Your task to perform on an android device: Do I have any events this weekend? Image 0: 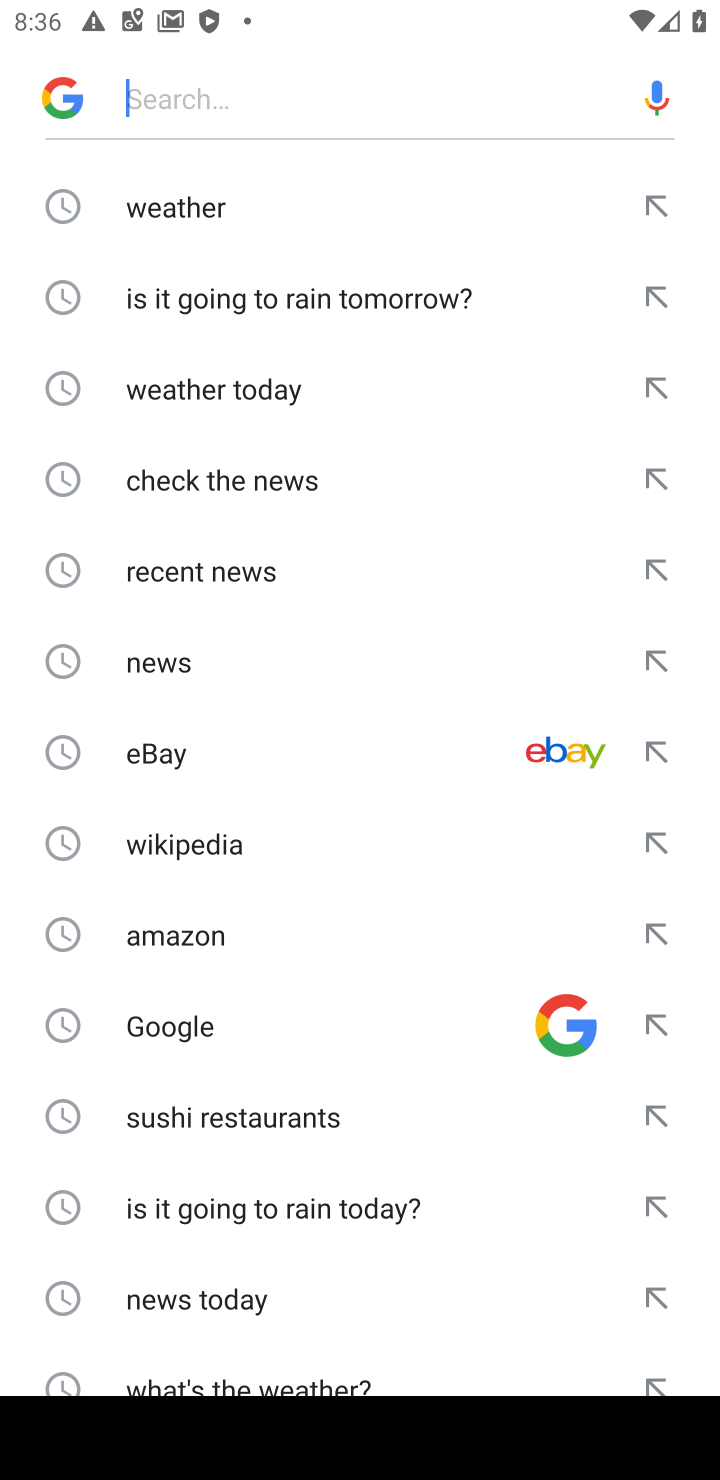
Step 0: press home button
Your task to perform on an android device: Do I have any events this weekend? Image 1: 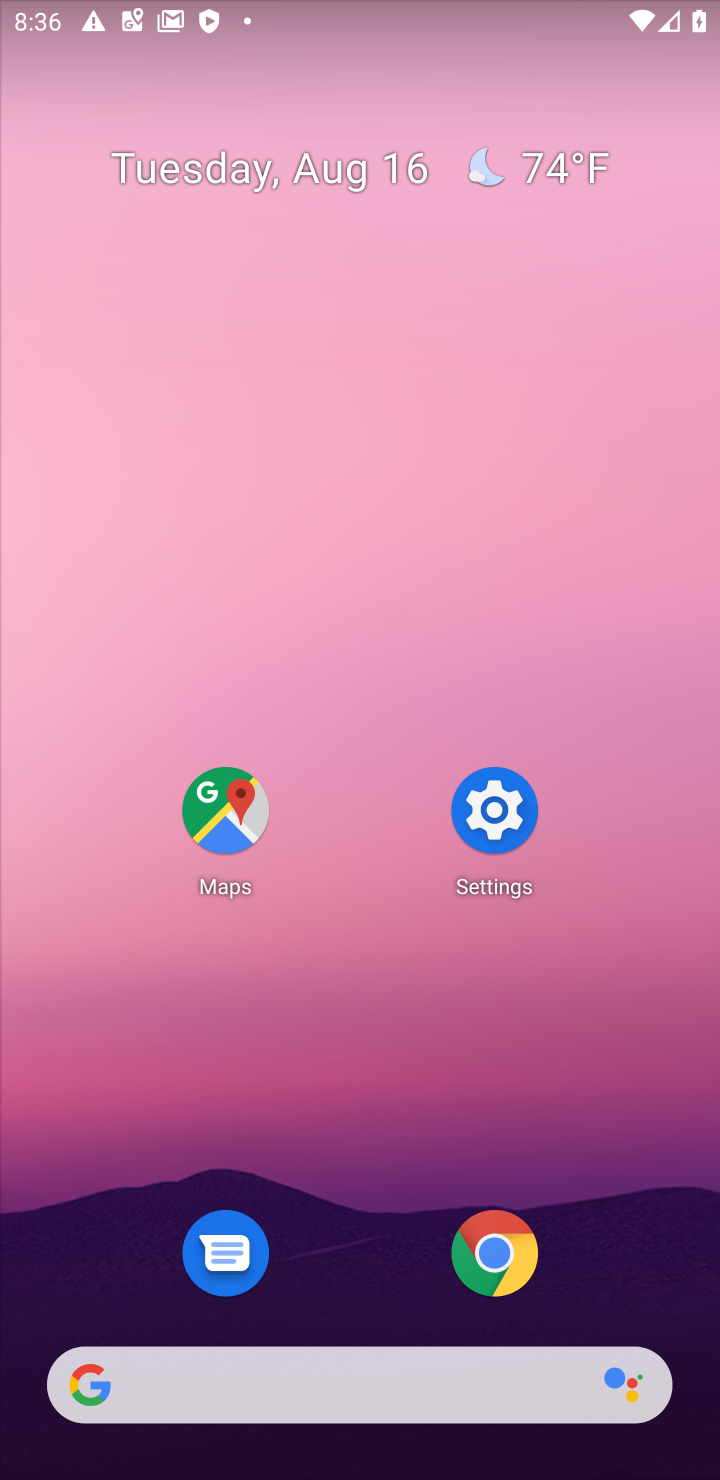
Step 1: drag from (310, 1293) to (523, 485)
Your task to perform on an android device: Do I have any events this weekend? Image 2: 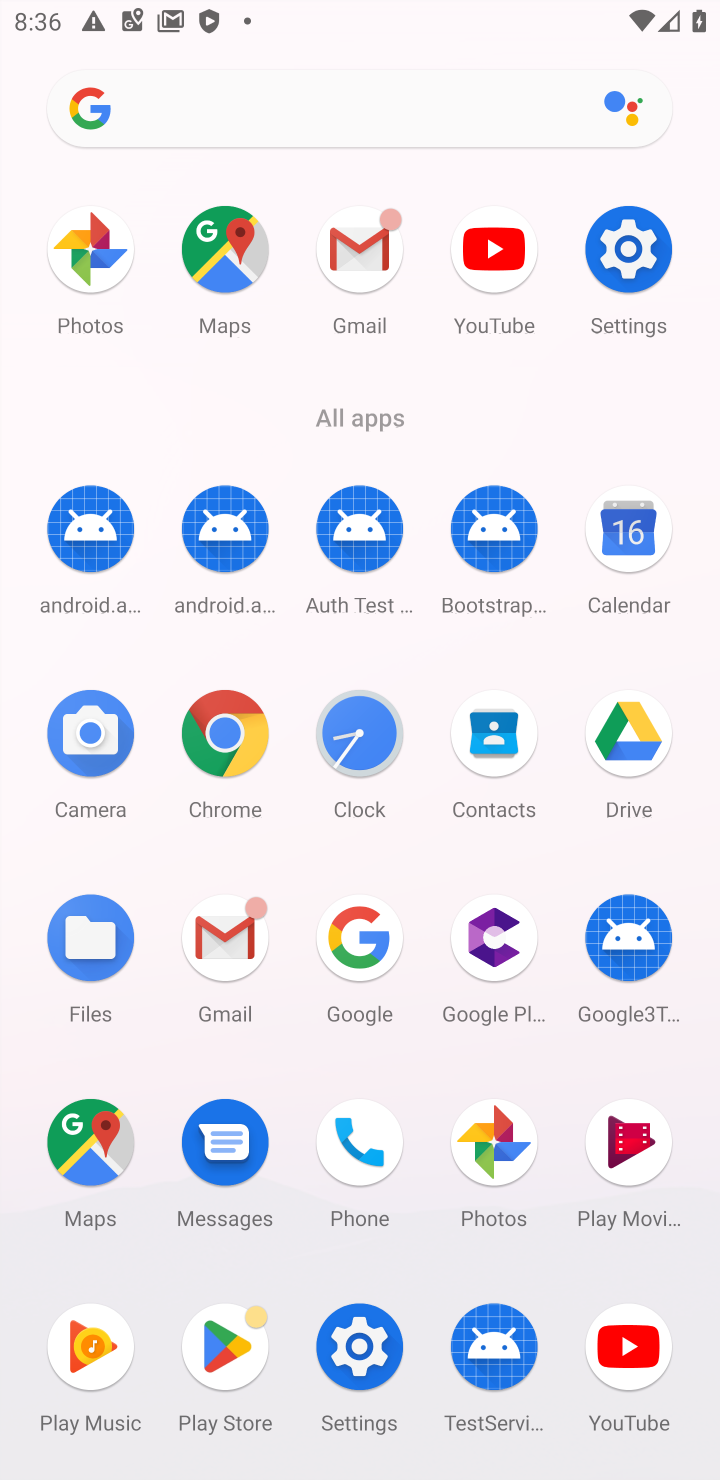
Step 2: click (607, 527)
Your task to perform on an android device: Do I have any events this weekend? Image 3: 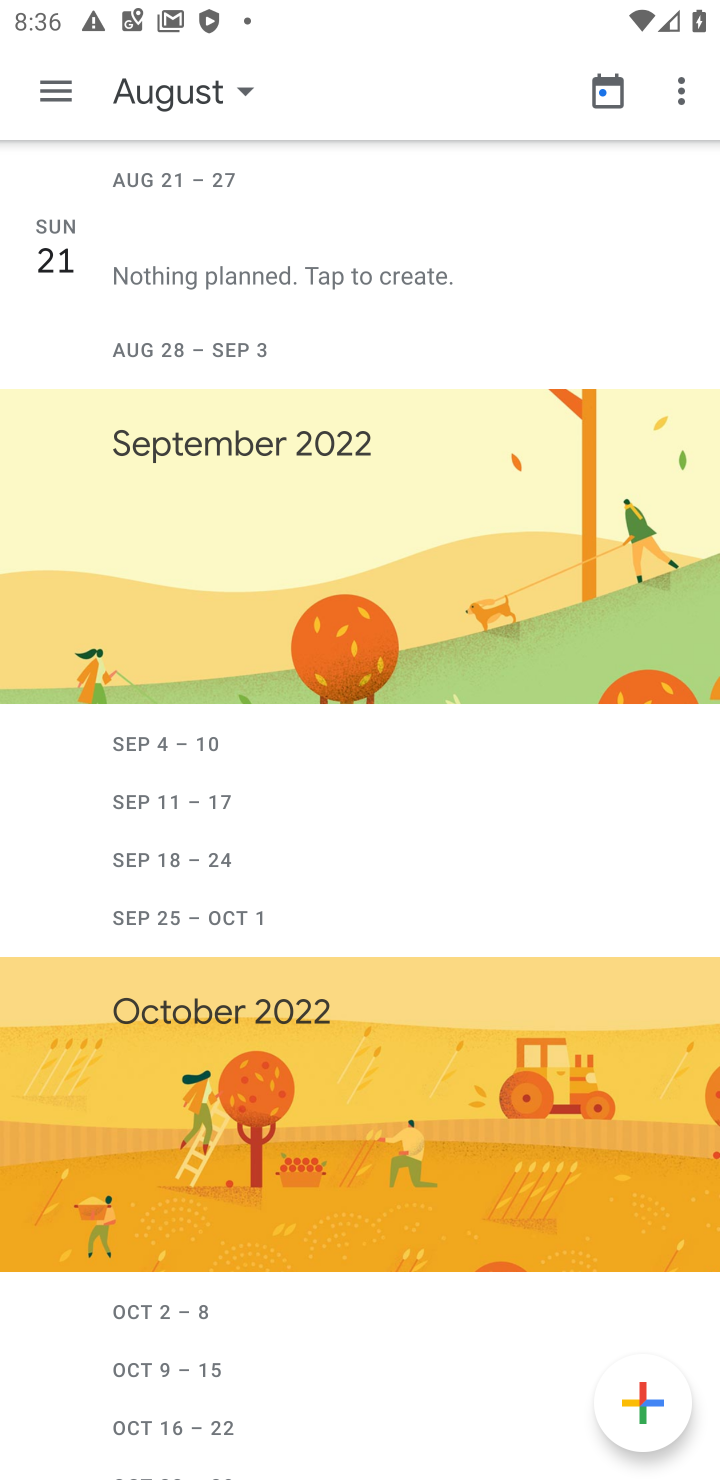
Step 3: click (157, 101)
Your task to perform on an android device: Do I have any events this weekend? Image 4: 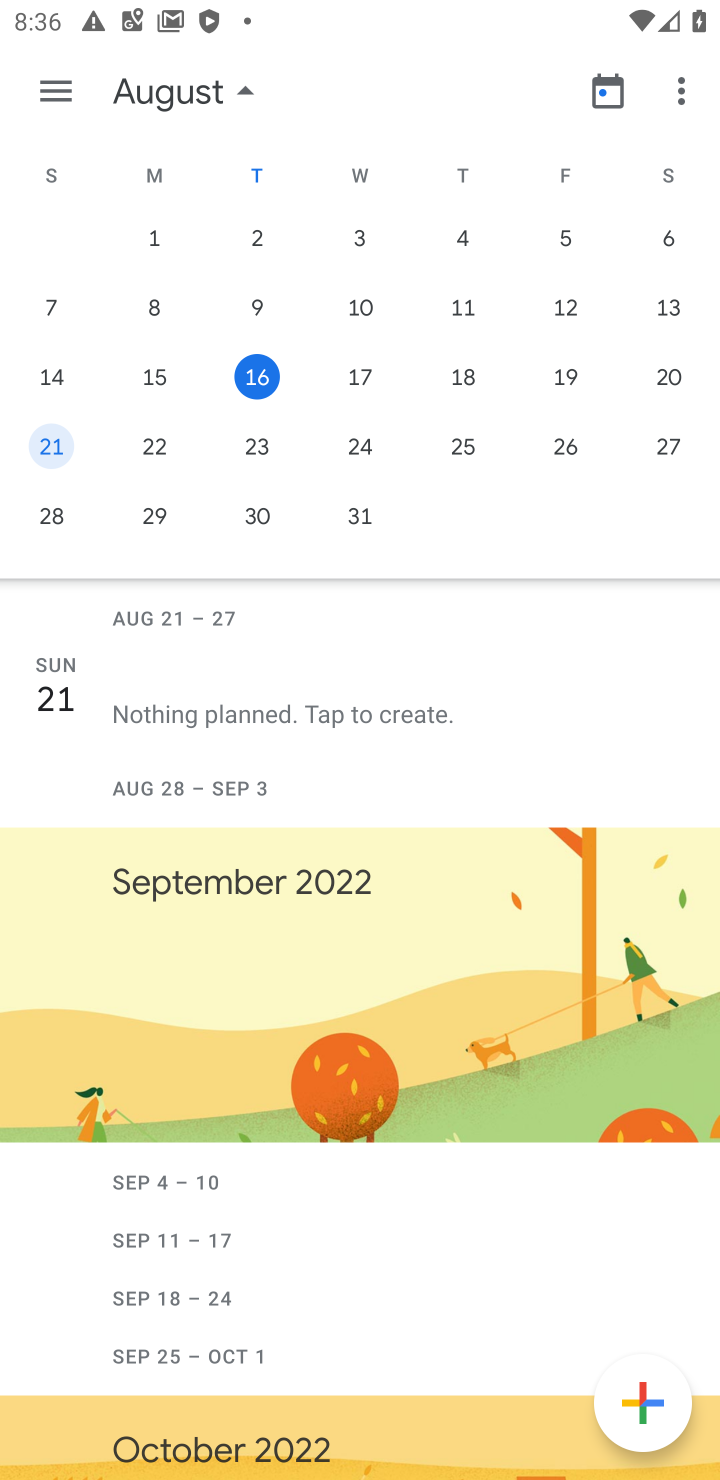
Step 4: click (663, 362)
Your task to perform on an android device: Do I have any events this weekend? Image 5: 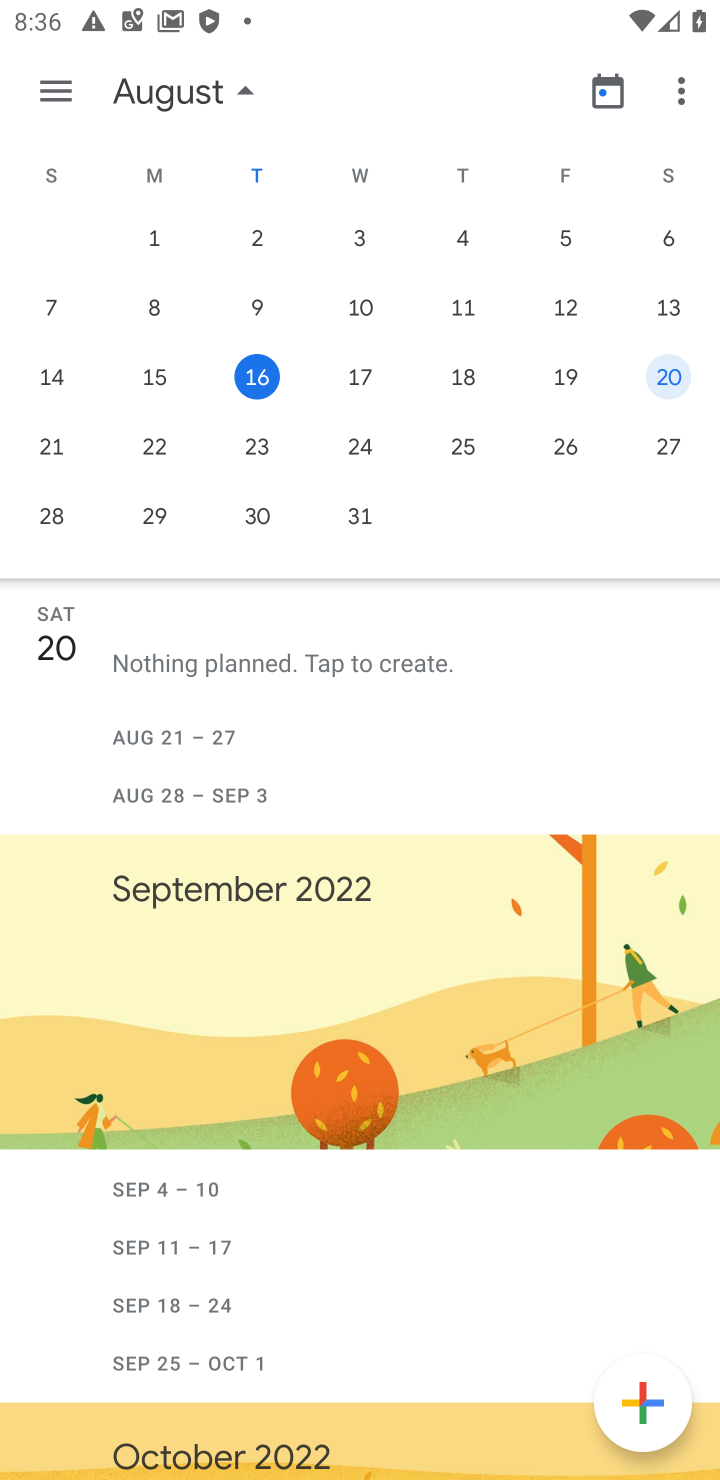
Step 5: click (61, 85)
Your task to perform on an android device: Do I have any events this weekend? Image 6: 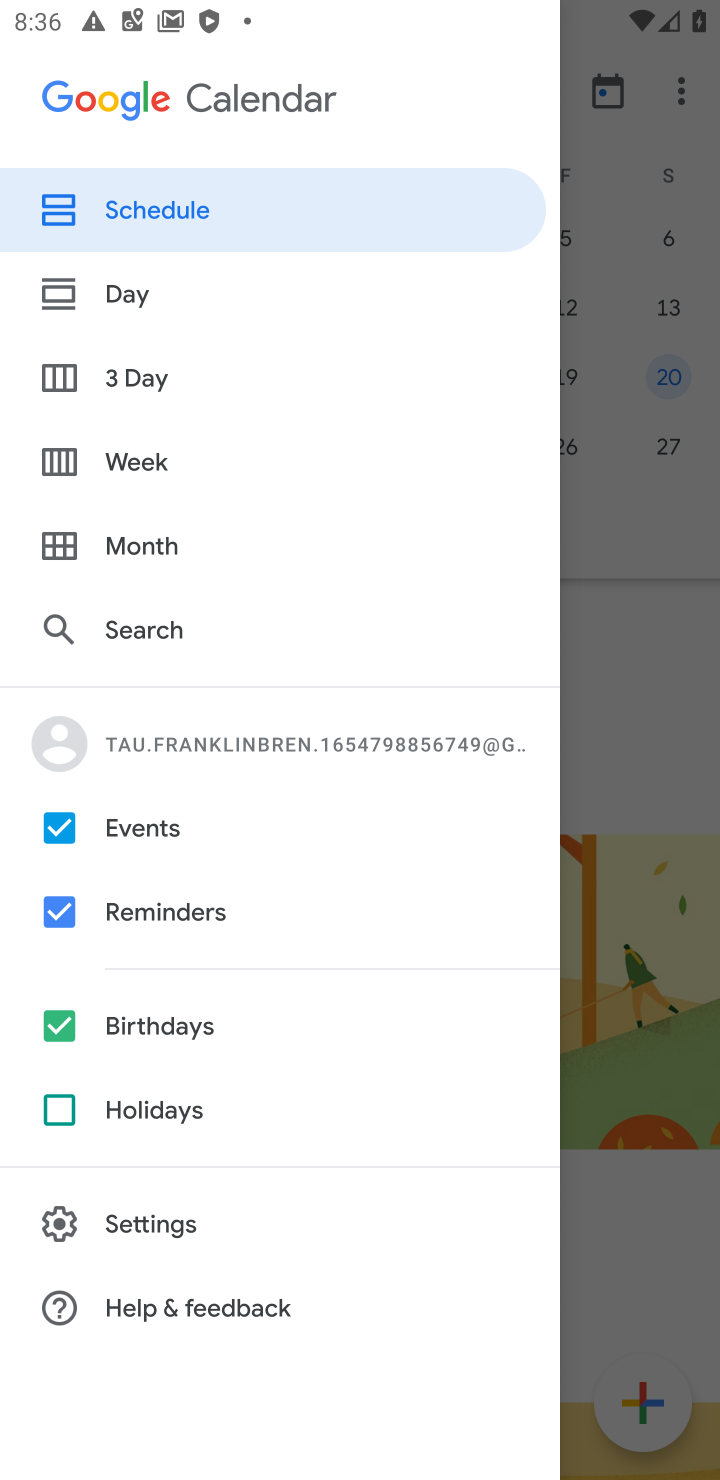
Step 6: click (112, 286)
Your task to perform on an android device: Do I have any events this weekend? Image 7: 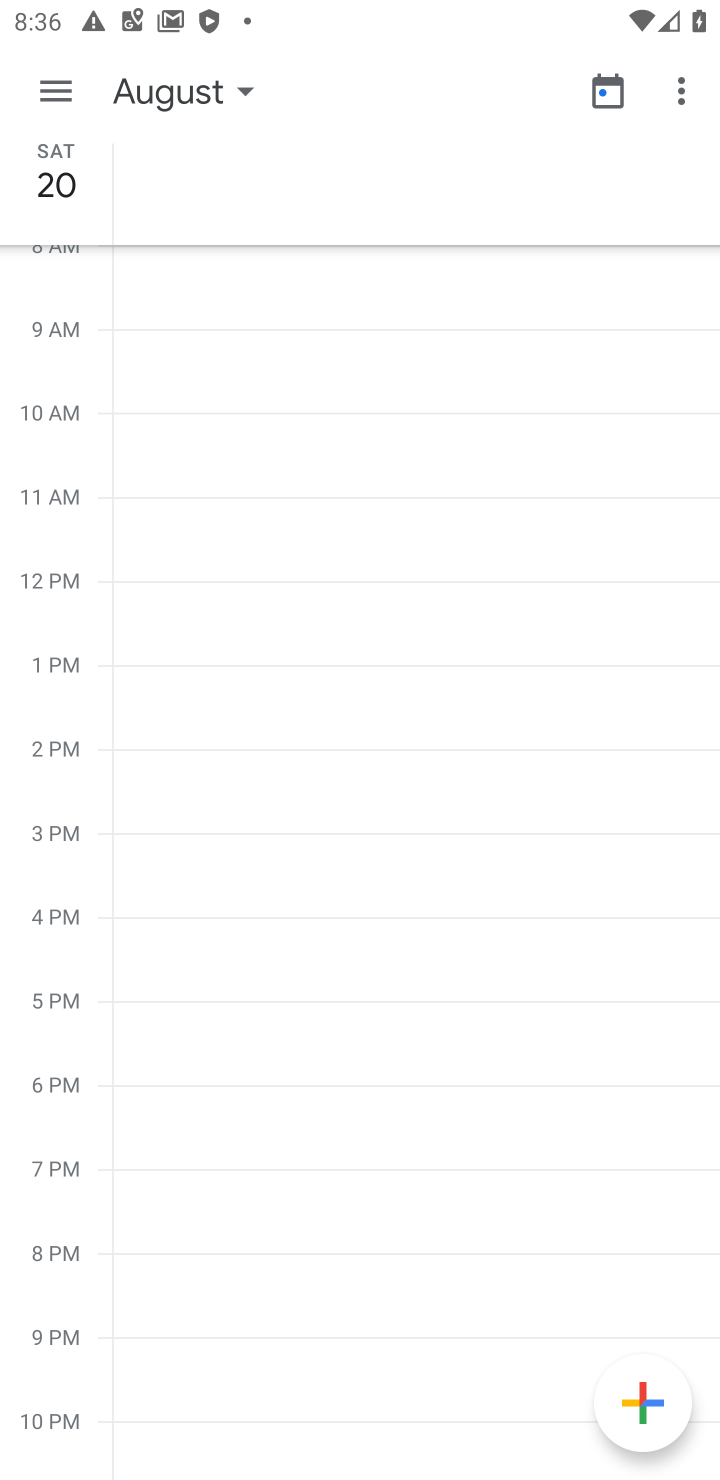
Step 7: click (44, 77)
Your task to perform on an android device: Do I have any events this weekend? Image 8: 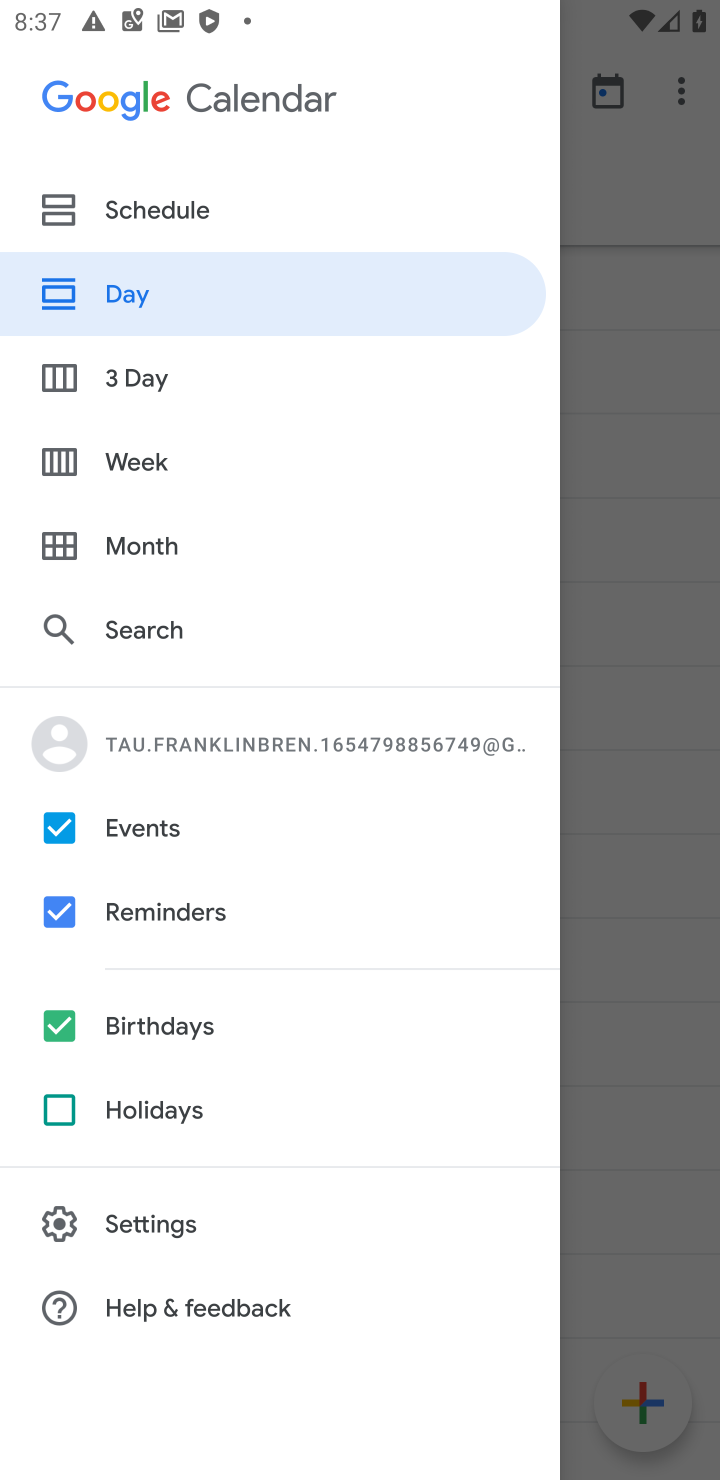
Step 8: click (116, 214)
Your task to perform on an android device: Do I have any events this weekend? Image 9: 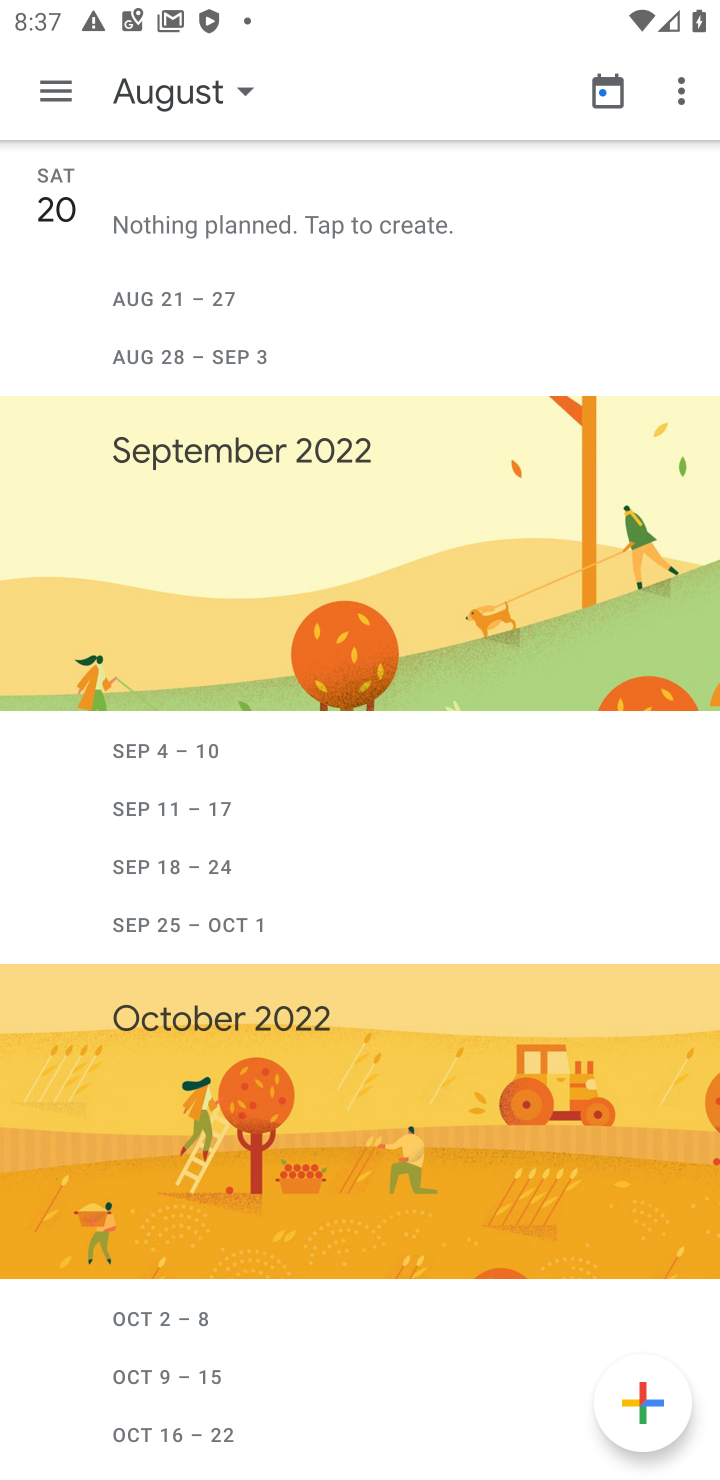
Step 9: task complete